Your task to perform on an android device: add a label to a message in the gmail app Image 0: 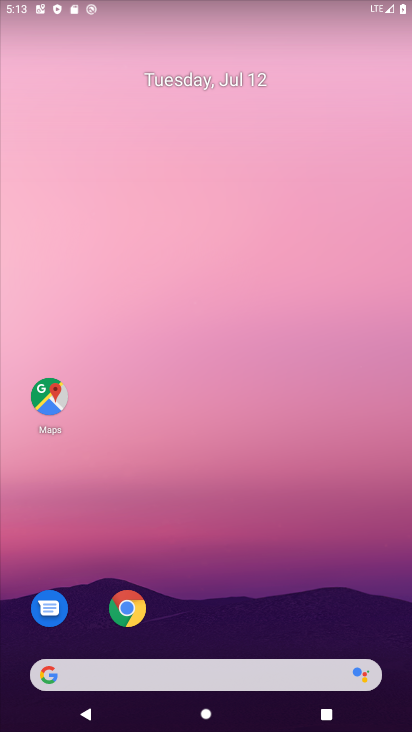
Step 0: drag from (173, 605) to (147, 116)
Your task to perform on an android device: add a label to a message in the gmail app Image 1: 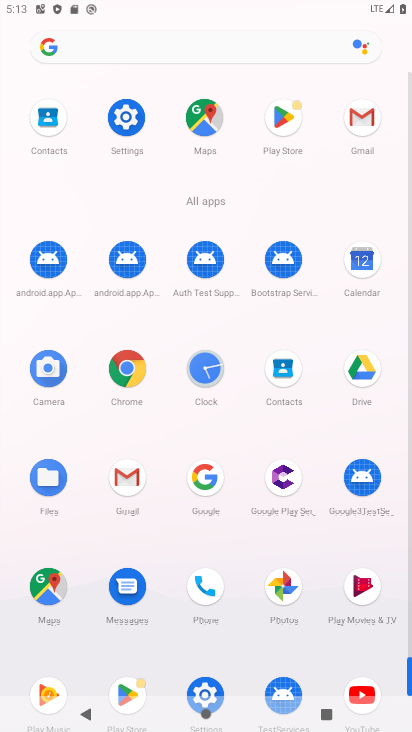
Step 1: click (363, 122)
Your task to perform on an android device: add a label to a message in the gmail app Image 2: 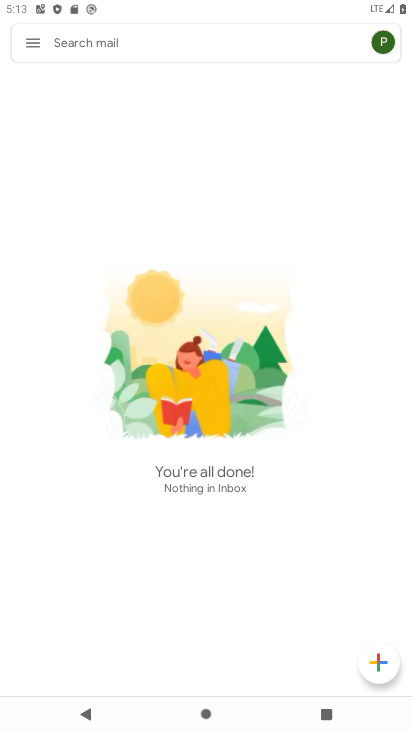
Step 2: task complete